Your task to perform on an android device: change the clock display to digital Image 0: 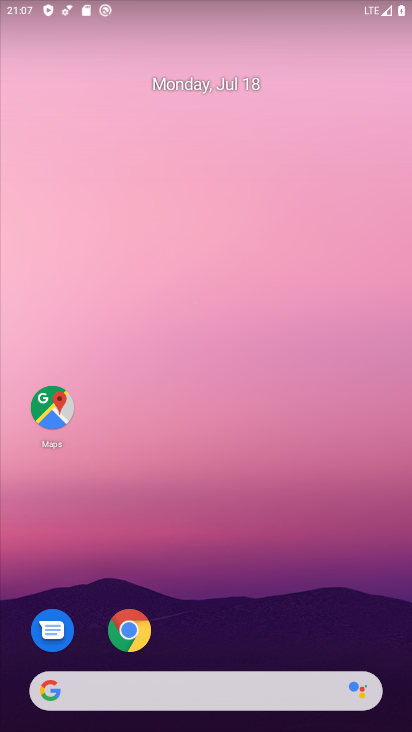
Step 0: drag from (386, 571) to (6, 304)
Your task to perform on an android device: change the clock display to digital Image 1: 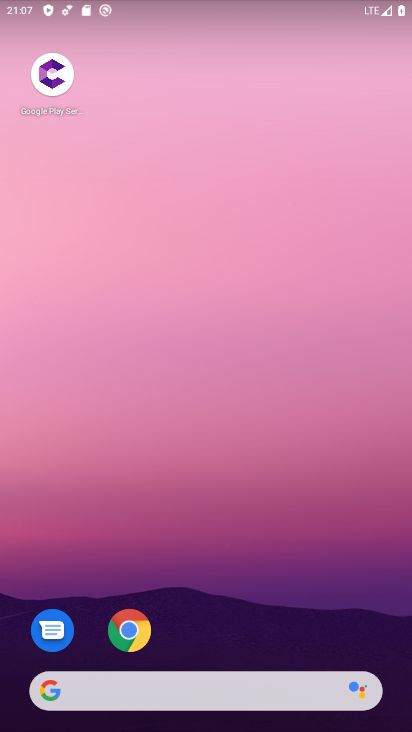
Step 1: click (276, 444)
Your task to perform on an android device: change the clock display to digital Image 2: 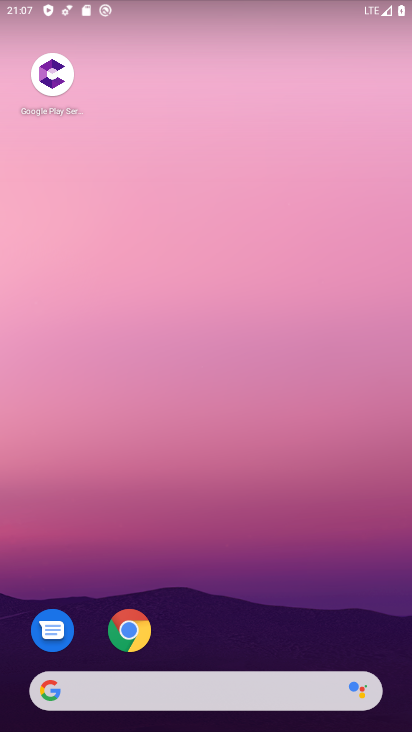
Step 2: drag from (202, 702) to (216, 112)
Your task to perform on an android device: change the clock display to digital Image 3: 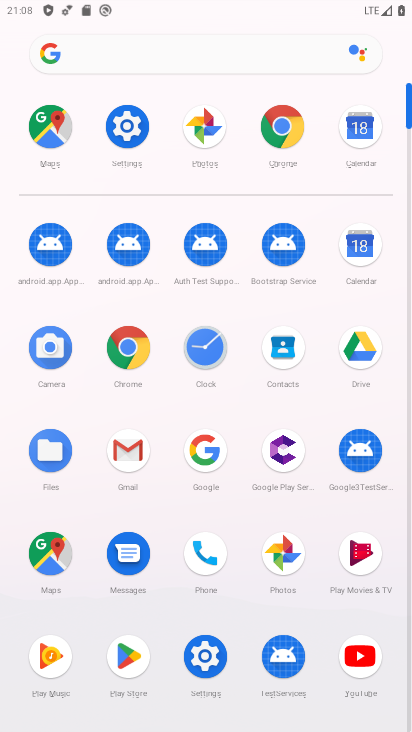
Step 3: click (204, 341)
Your task to perform on an android device: change the clock display to digital Image 4: 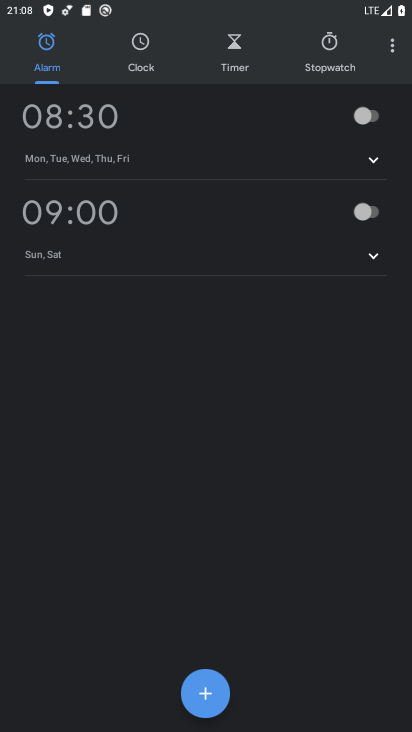
Step 4: click (395, 50)
Your task to perform on an android device: change the clock display to digital Image 5: 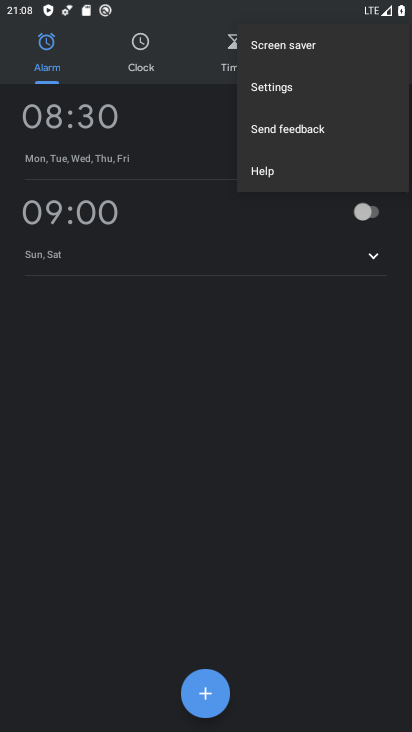
Step 5: click (274, 77)
Your task to perform on an android device: change the clock display to digital Image 6: 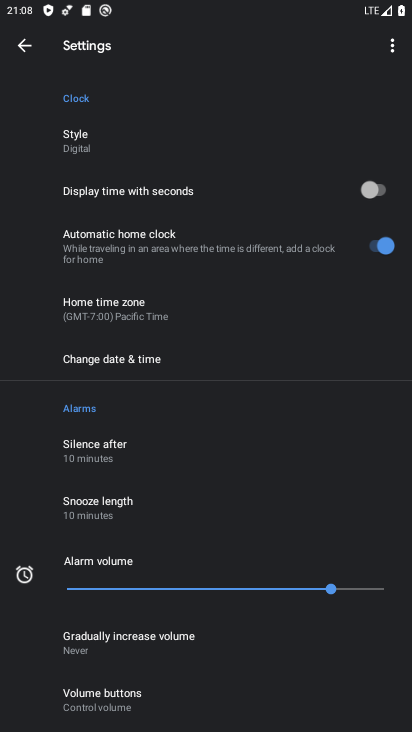
Step 6: click (122, 135)
Your task to perform on an android device: change the clock display to digital Image 7: 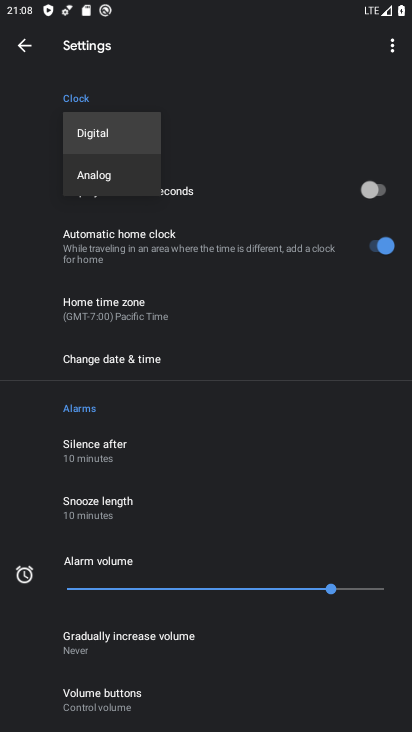
Step 7: task complete